Your task to perform on an android device: What is the news today? Image 0: 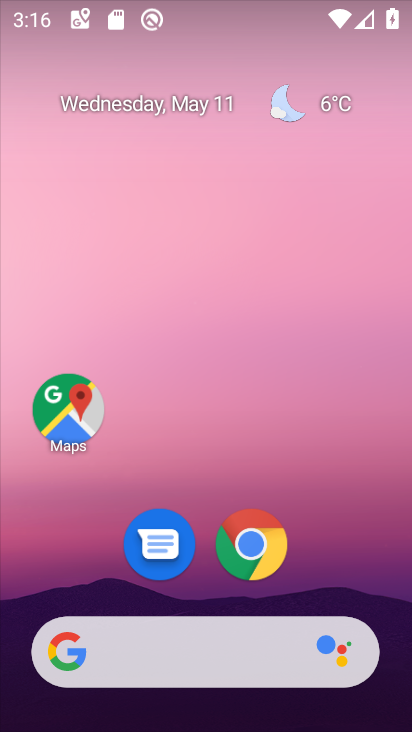
Step 0: click (229, 643)
Your task to perform on an android device: What is the news today? Image 1: 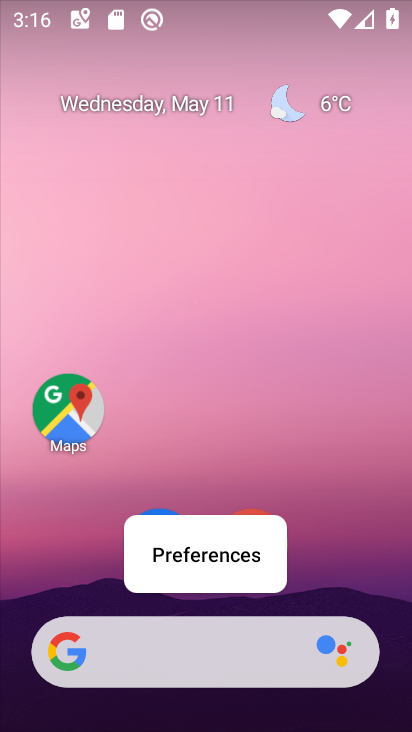
Step 1: click (229, 643)
Your task to perform on an android device: What is the news today? Image 2: 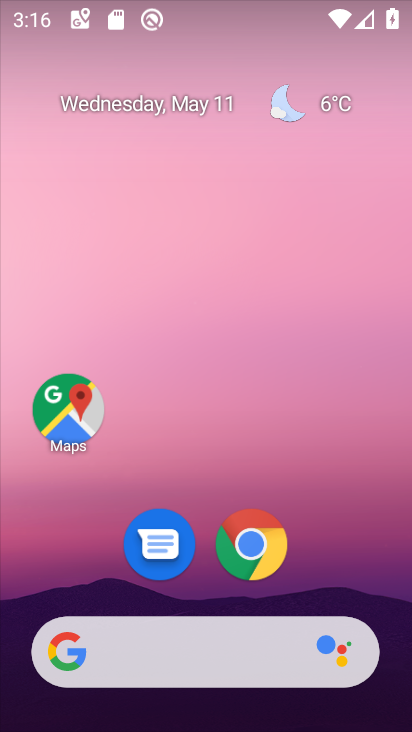
Step 2: click (145, 647)
Your task to perform on an android device: What is the news today? Image 3: 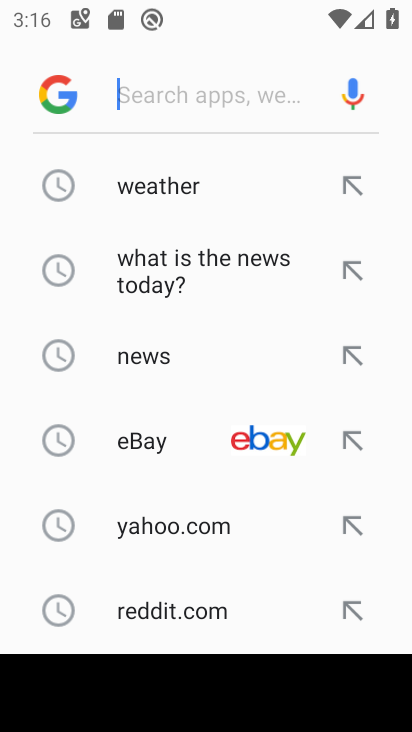
Step 3: type "what is the news today"
Your task to perform on an android device: What is the news today? Image 4: 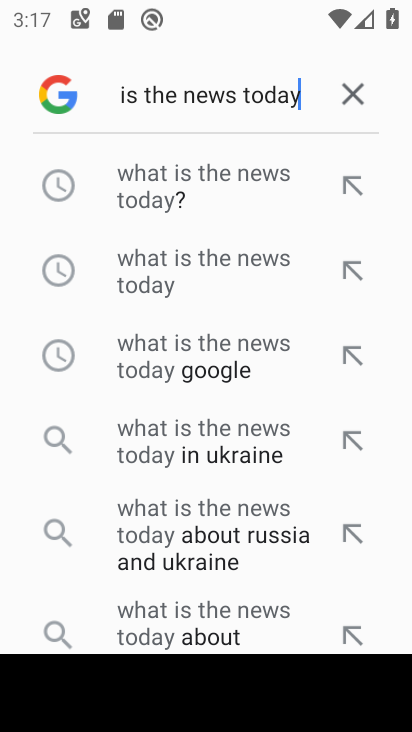
Step 4: click (177, 183)
Your task to perform on an android device: What is the news today? Image 5: 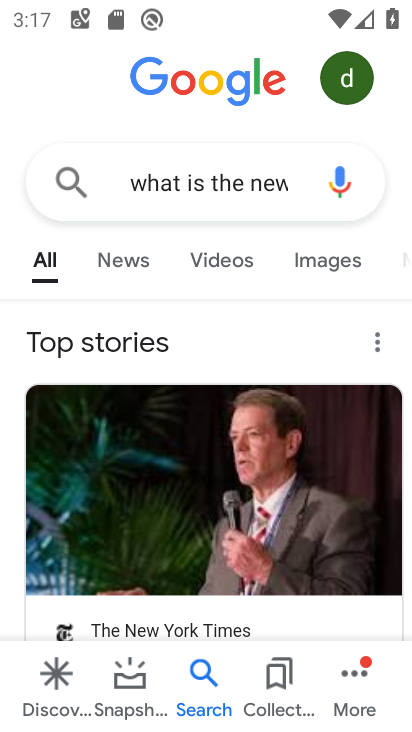
Step 5: click (140, 252)
Your task to perform on an android device: What is the news today? Image 6: 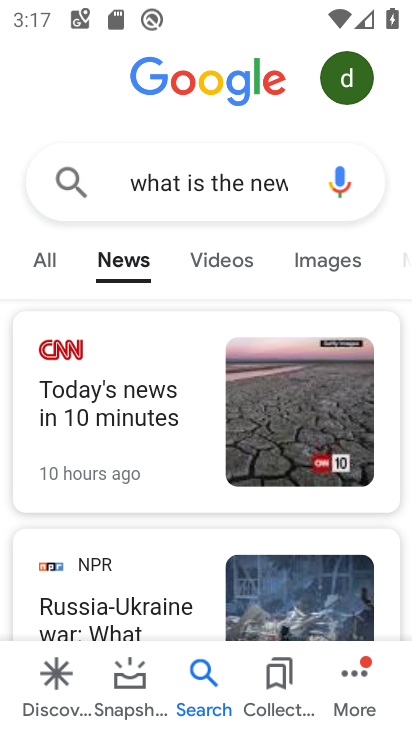
Step 6: task complete